Your task to perform on an android device: Go to accessibility settings Image 0: 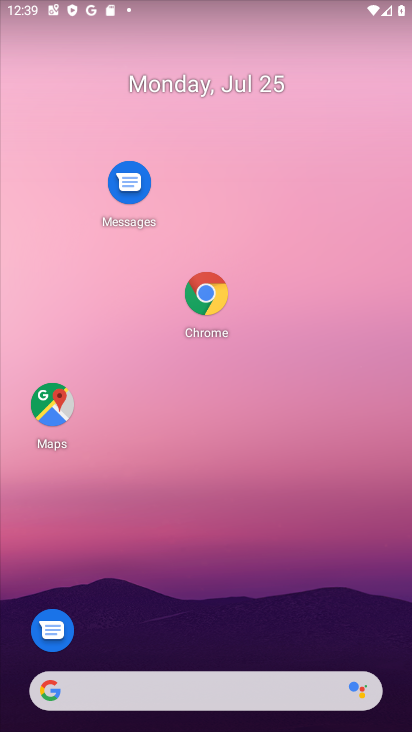
Step 0: click (353, 129)
Your task to perform on an android device: Go to accessibility settings Image 1: 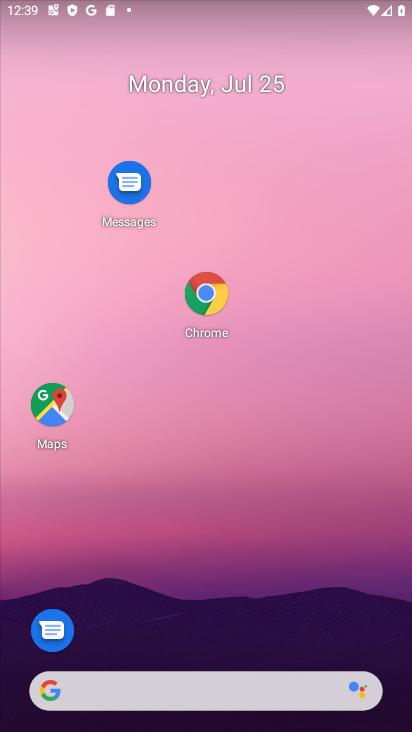
Step 1: drag from (272, 584) to (215, 65)
Your task to perform on an android device: Go to accessibility settings Image 2: 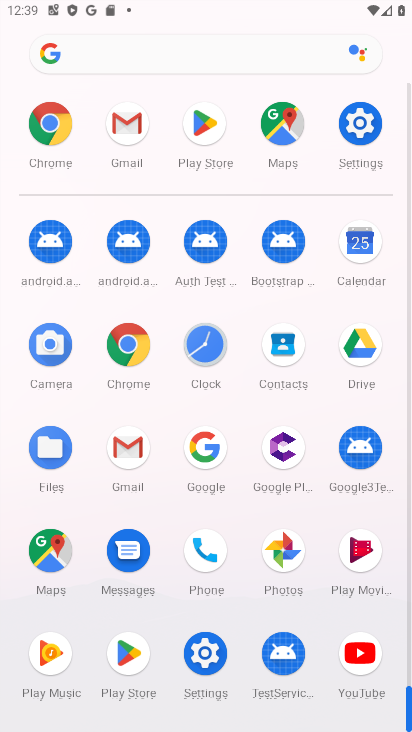
Step 2: click (358, 131)
Your task to perform on an android device: Go to accessibility settings Image 3: 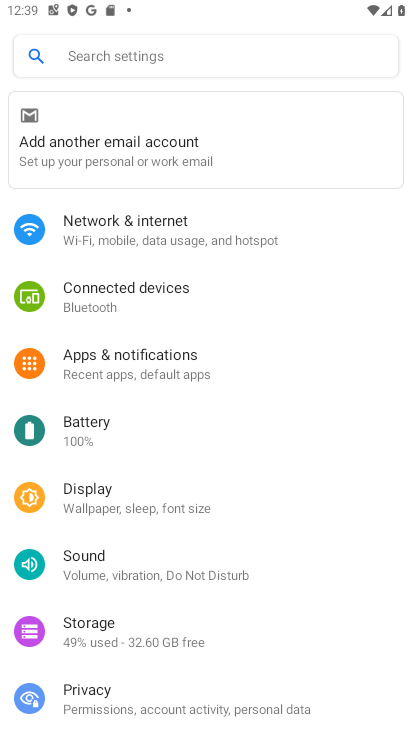
Step 3: drag from (184, 650) to (194, 200)
Your task to perform on an android device: Go to accessibility settings Image 4: 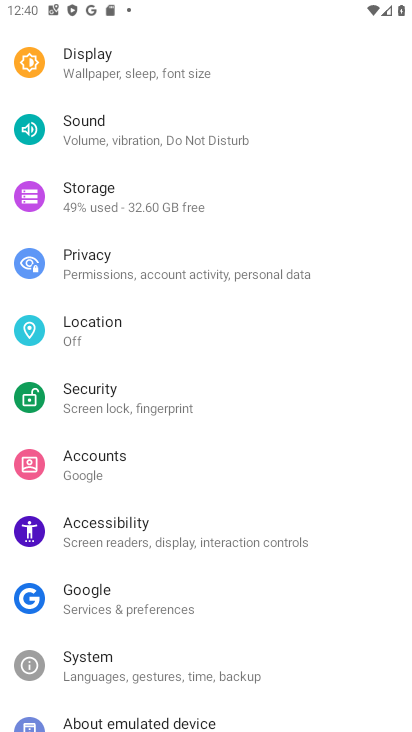
Step 4: click (112, 521)
Your task to perform on an android device: Go to accessibility settings Image 5: 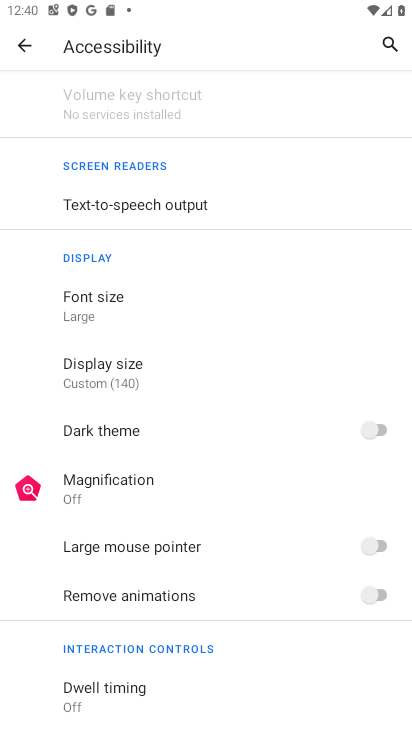
Step 5: task complete